Your task to perform on an android device: open app "YouTube Kids" (install if not already installed) Image 0: 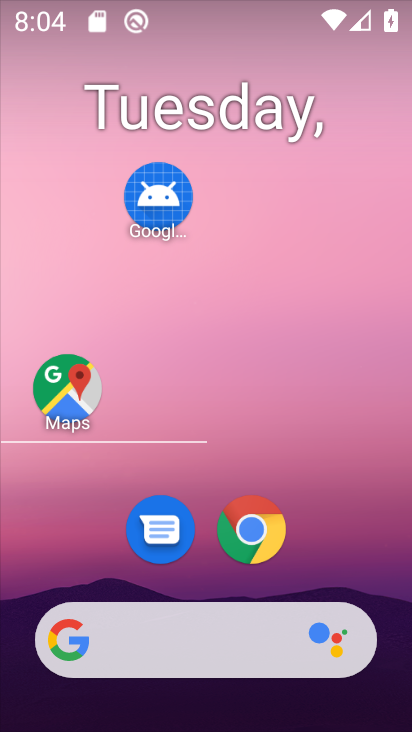
Step 0: press home button
Your task to perform on an android device: open app "YouTube Kids" (install if not already installed) Image 1: 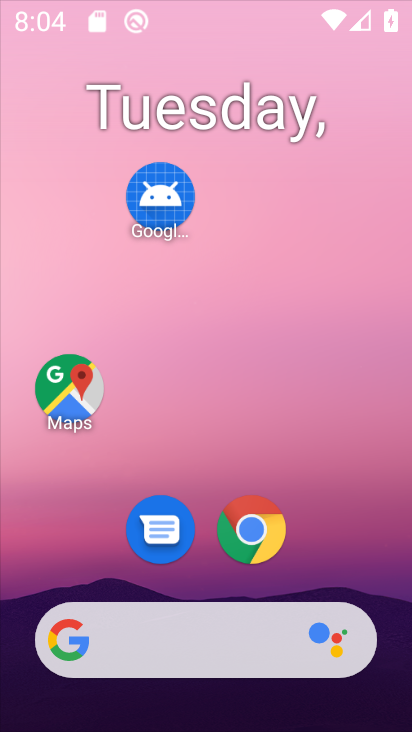
Step 1: drag from (329, 565) to (328, 51)
Your task to perform on an android device: open app "YouTube Kids" (install if not already installed) Image 2: 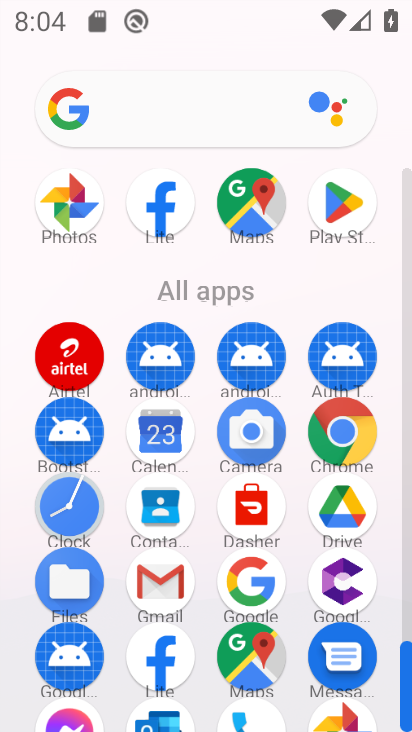
Step 2: click (342, 196)
Your task to perform on an android device: open app "YouTube Kids" (install if not already installed) Image 3: 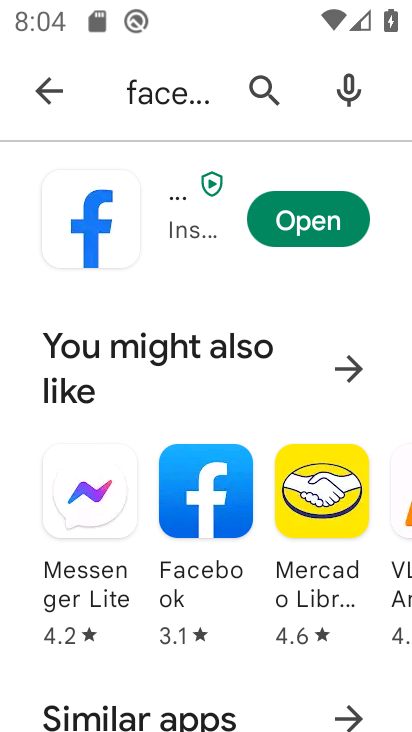
Step 3: click (269, 79)
Your task to perform on an android device: open app "YouTube Kids" (install if not already installed) Image 4: 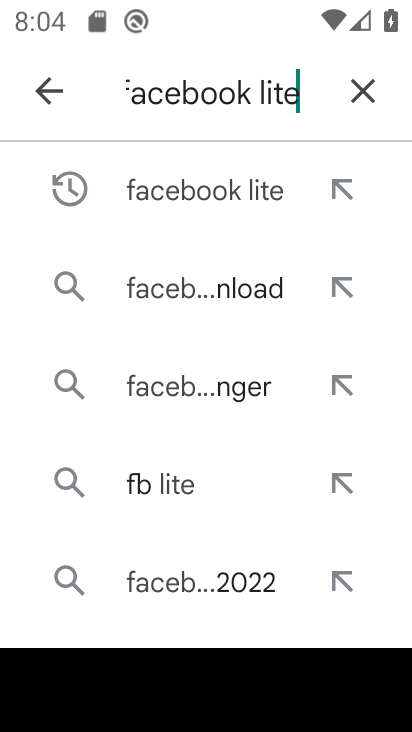
Step 4: click (362, 93)
Your task to perform on an android device: open app "YouTube Kids" (install if not already installed) Image 5: 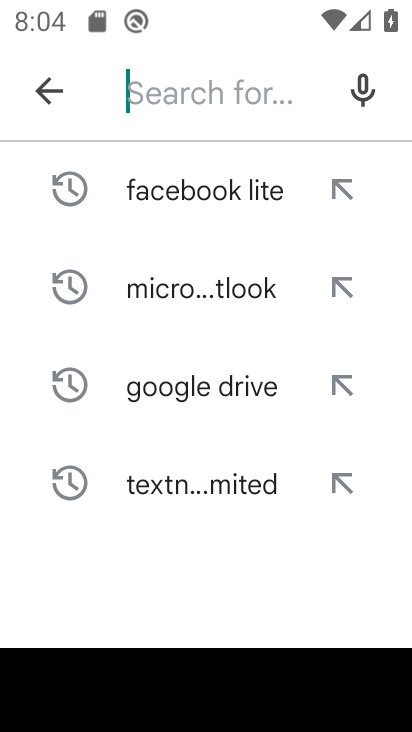
Step 5: type "YouTube Kids"
Your task to perform on an android device: open app "YouTube Kids" (install if not already installed) Image 6: 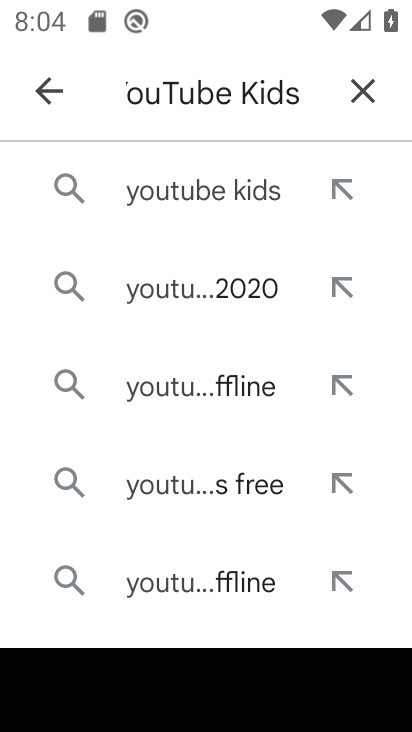
Step 6: click (255, 196)
Your task to perform on an android device: open app "YouTube Kids" (install if not already installed) Image 7: 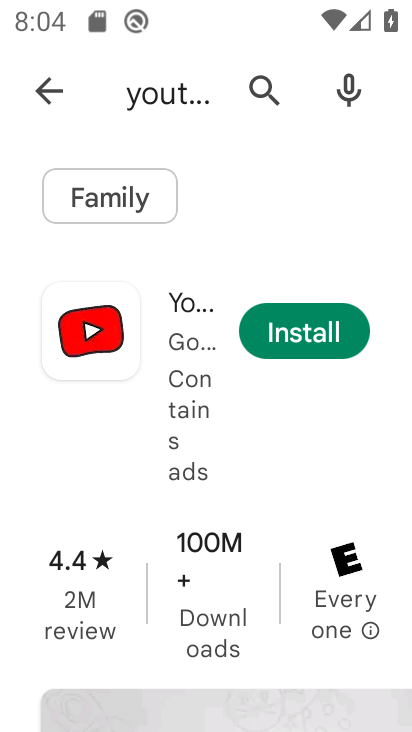
Step 7: click (299, 332)
Your task to perform on an android device: open app "YouTube Kids" (install if not already installed) Image 8: 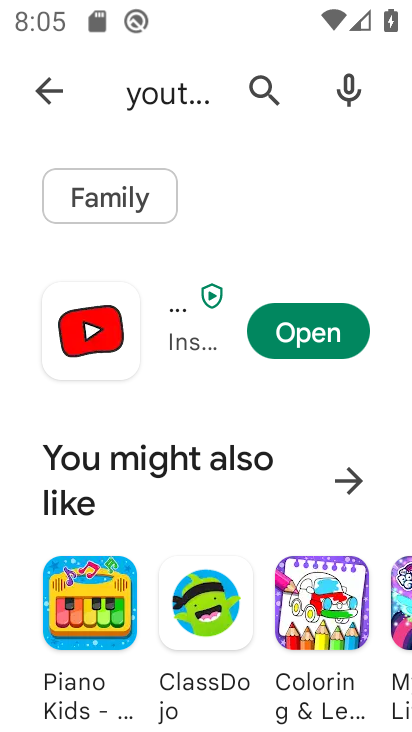
Step 8: click (300, 338)
Your task to perform on an android device: open app "YouTube Kids" (install if not already installed) Image 9: 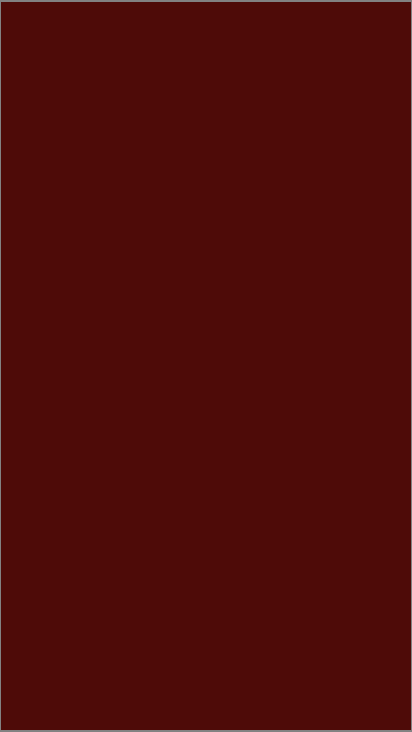
Step 9: task complete